Your task to perform on an android device: Search for macbook pro 13 inch on amazon.com, select the first entry, and add it to the cart. Image 0: 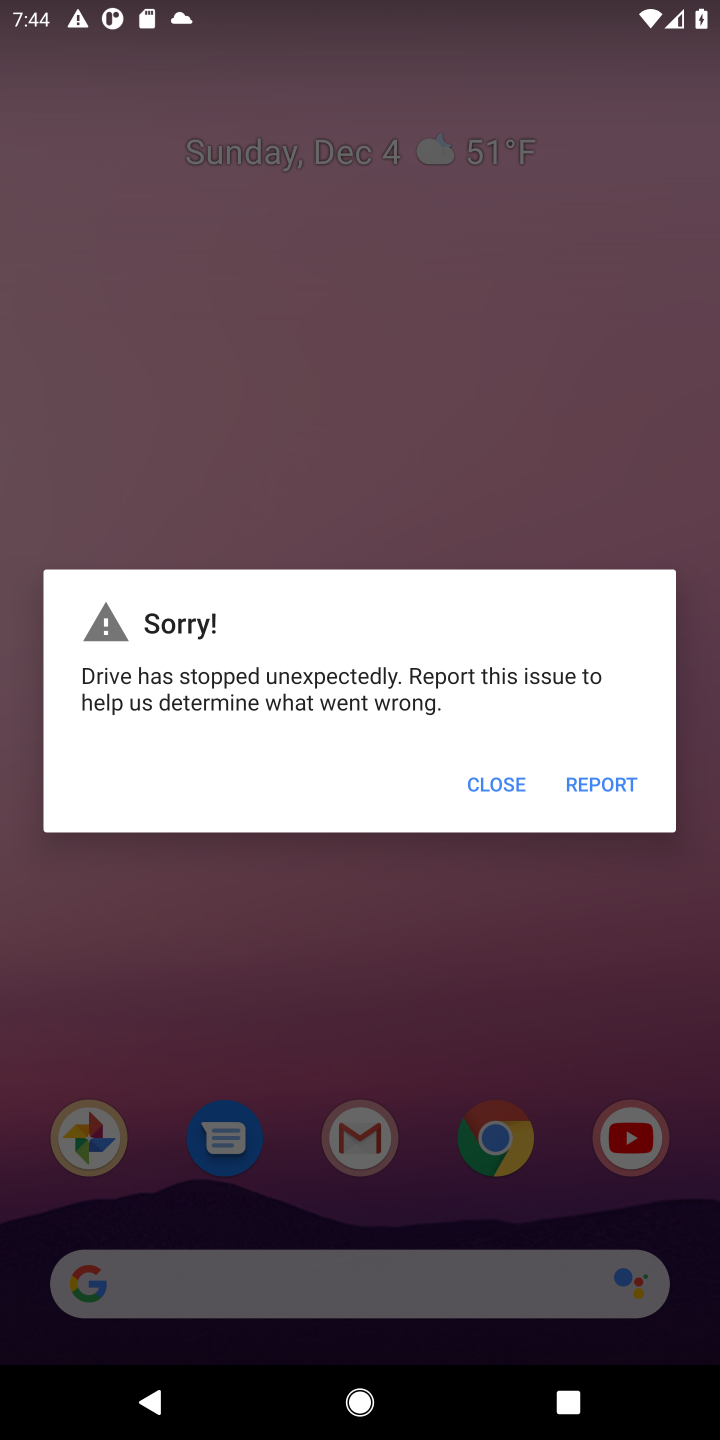
Step 0: press home button
Your task to perform on an android device: Search for macbook pro 13 inch on amazon.com, select the first entry, and add it to the cart. Image 1: 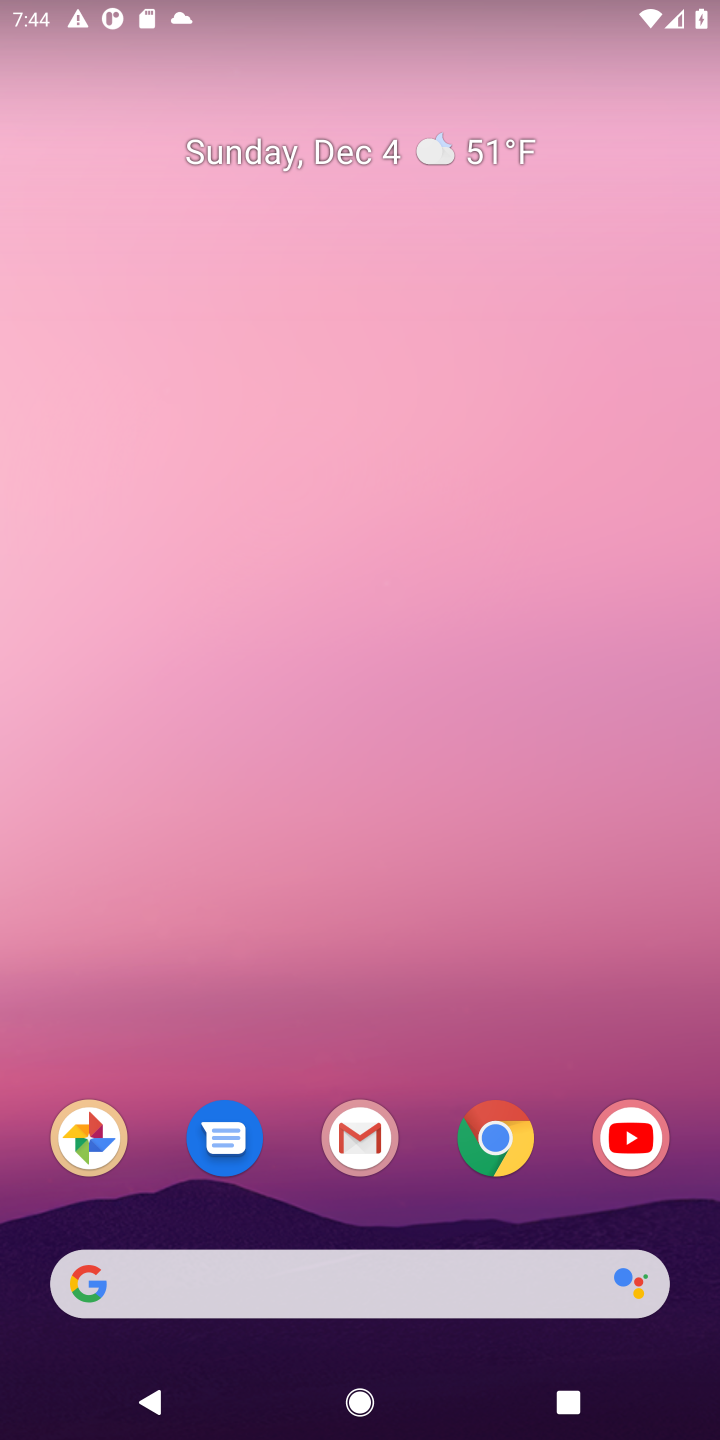
Step 1: click (506, 1146)
Your task to perform on an android device: Search for macbook pro 13 inch on amazon.com, select the first entry, and add it to the cart. Image 2: 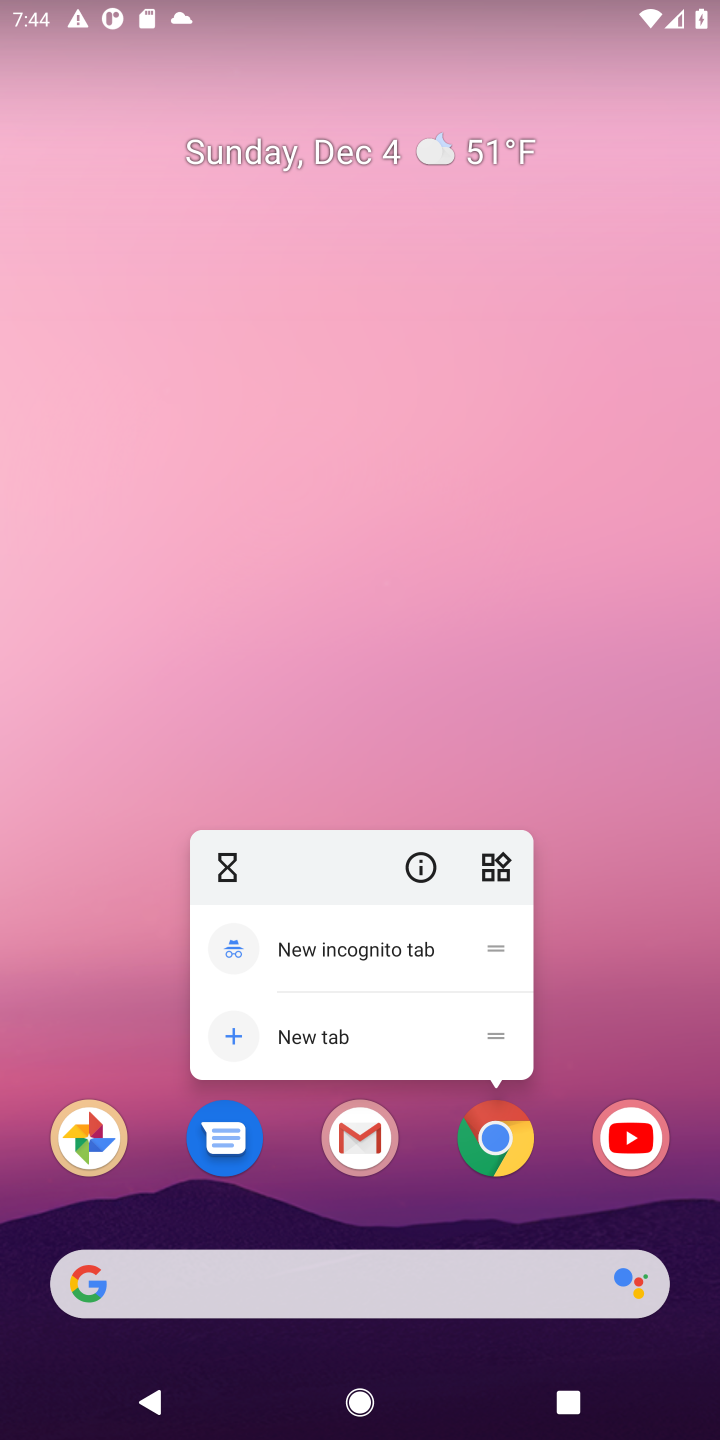
Step 2: click (506, 1146)
Your task to perform on an android device: Search for macbook pro 13 inch on amazon.com, select the first entry, and add it to the cart. Image 3: 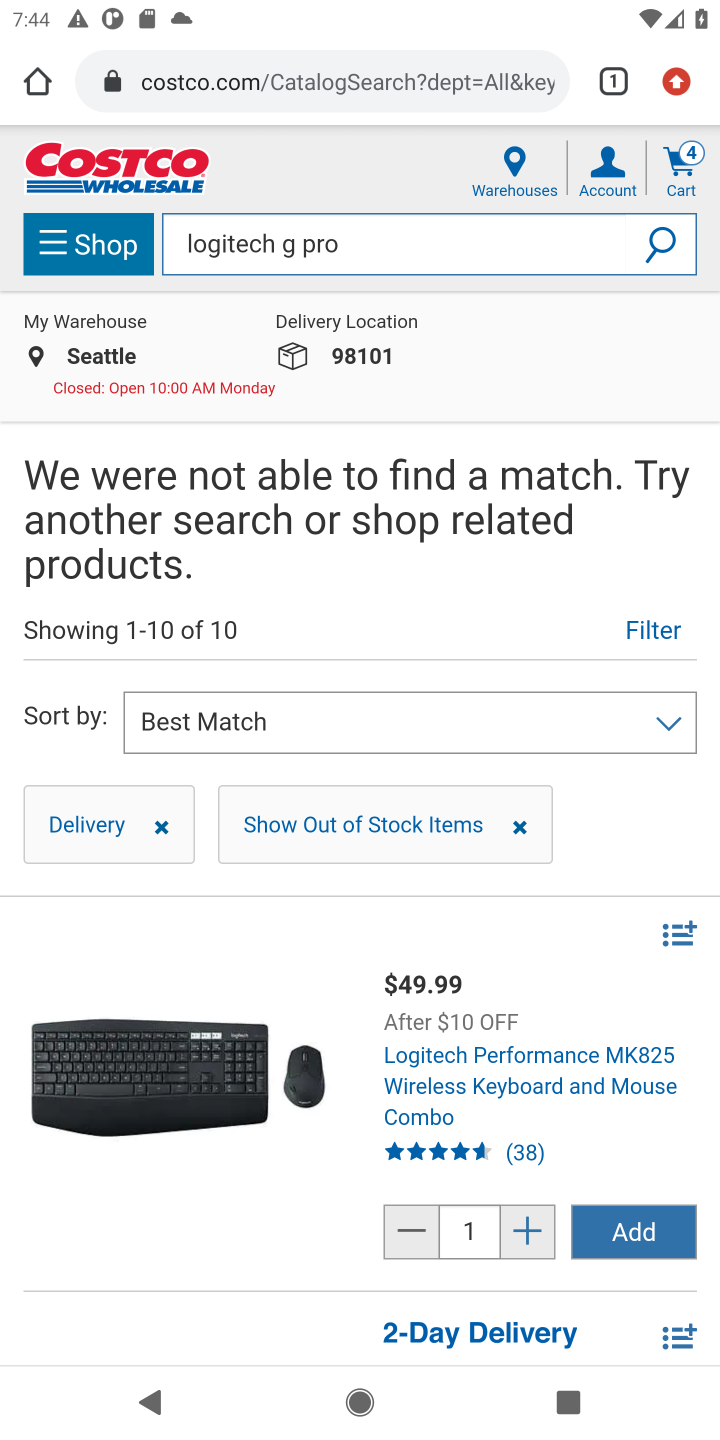
Step 3: click (426, 95)
Your task to perform on an android device: Search for macbook pro 13 inch on amazon.com, select the first entry, and add it to the cart. Image 4: 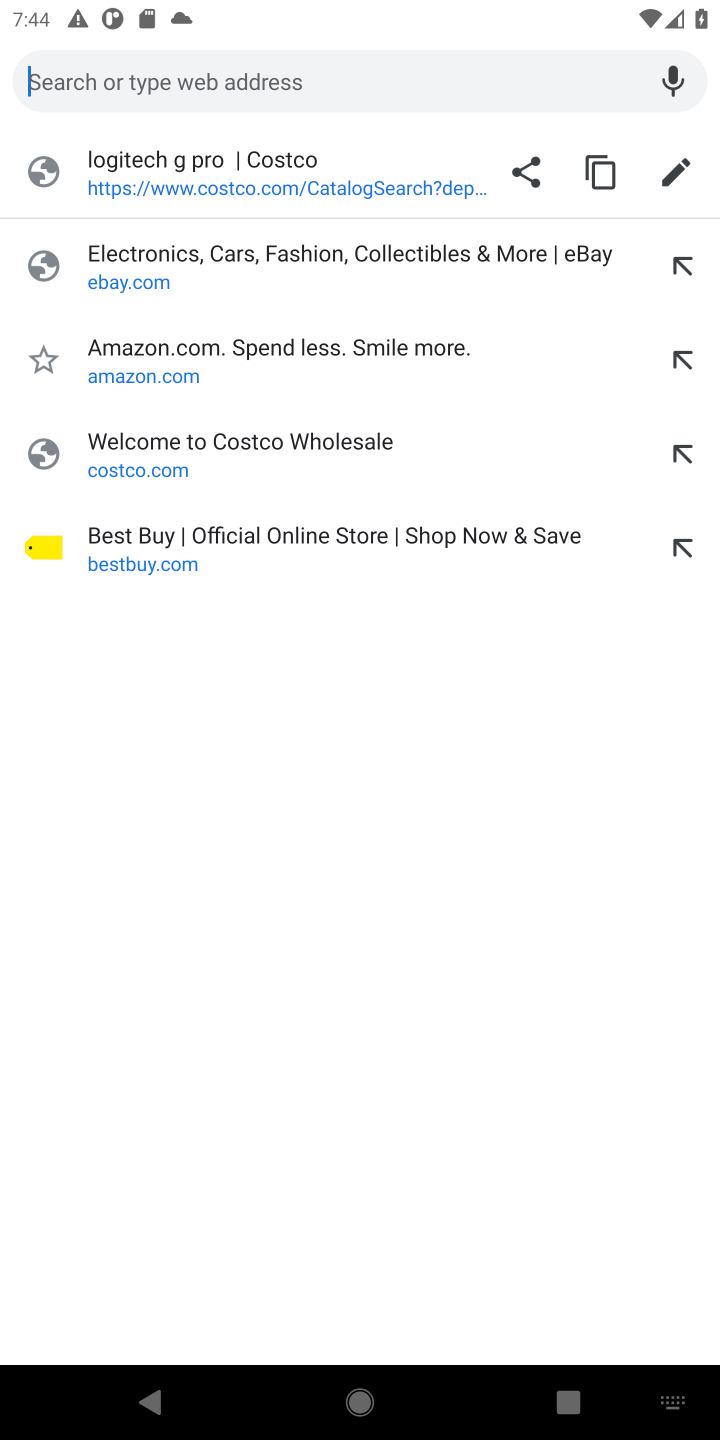
Step 4: click (218, 340)
Your task to perform on an android device: Search for macbook pro 13 inch on amazon.com, select the first entry, and add it to the cart. Image 5: 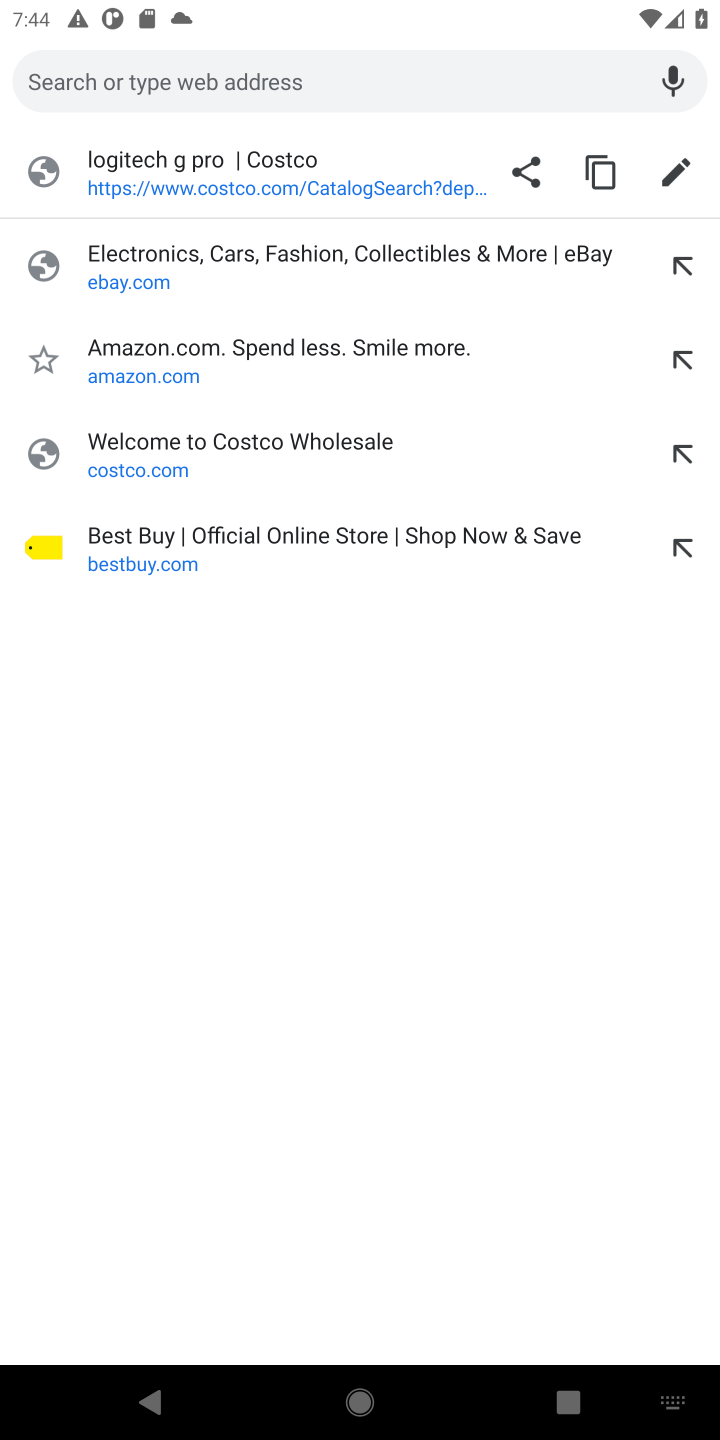
Step 5: click (298, 343)
Your task to perform on an android device: Search for macbook pro 13 inch on amazon.com, select the first entry, and add it to the cart. Image 6: 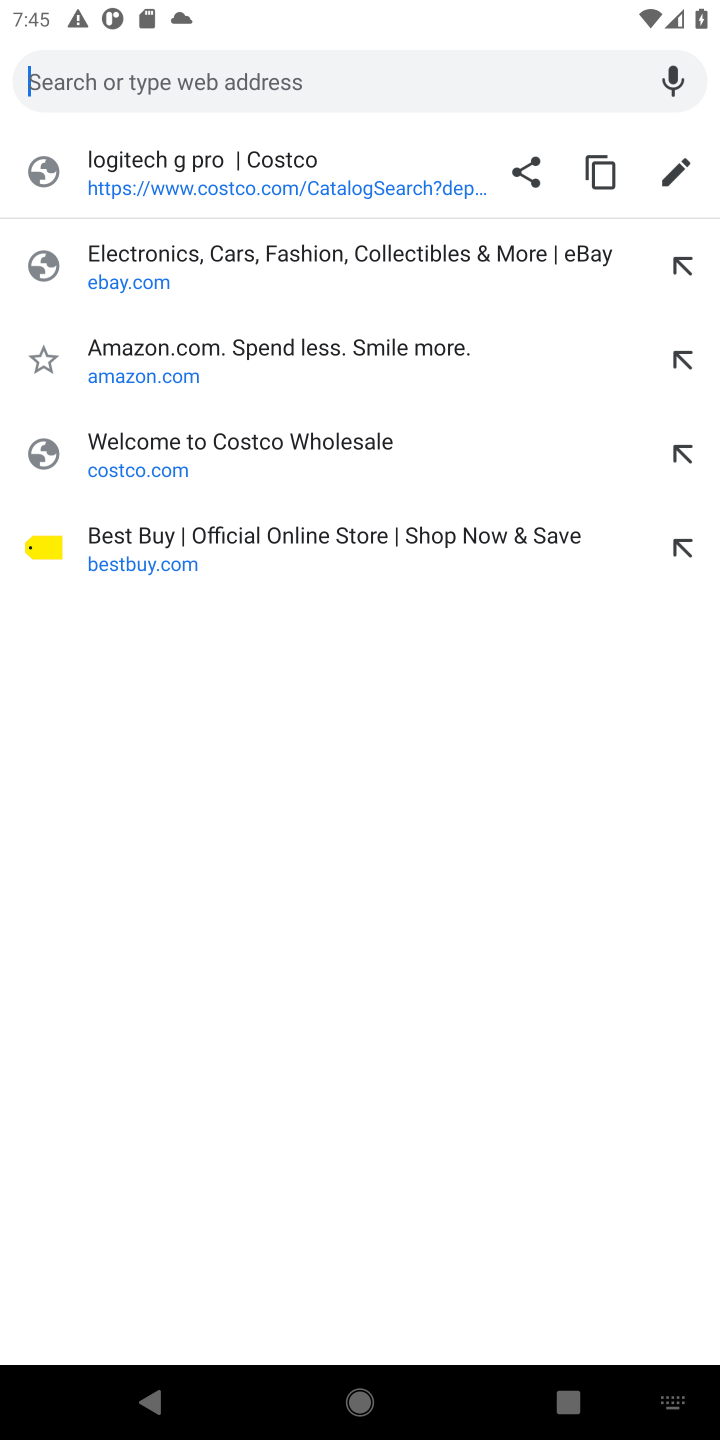
Step 6: click (298, 343)
Your task to perform on an android device: Search for macbook pro 13 inch on amazon.com, select the first entry, and add it to the cart. Image 7: 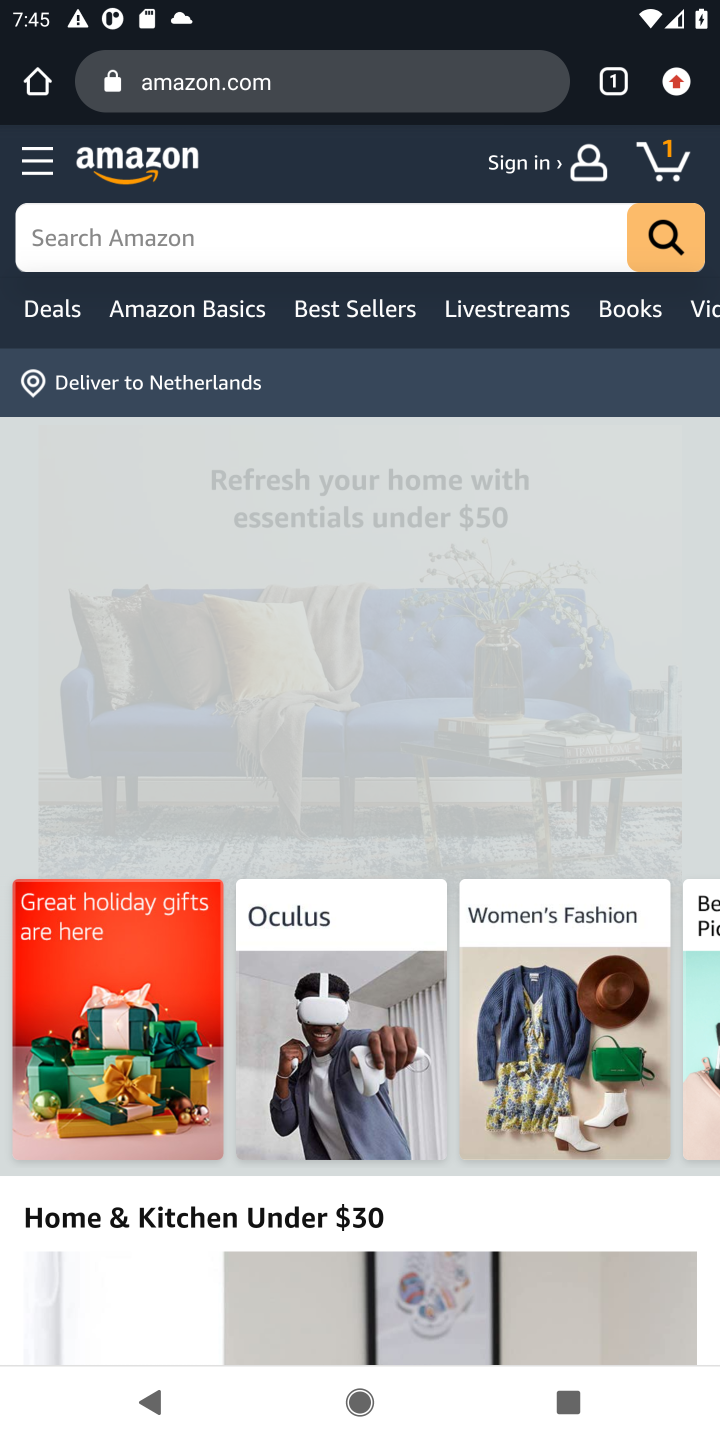
Step 7: click (557, 245)
Your task to perform on an android device: Search for macbook pro 13 inch on amazon.com, select the first entry, and add it to the cart. Image 8: 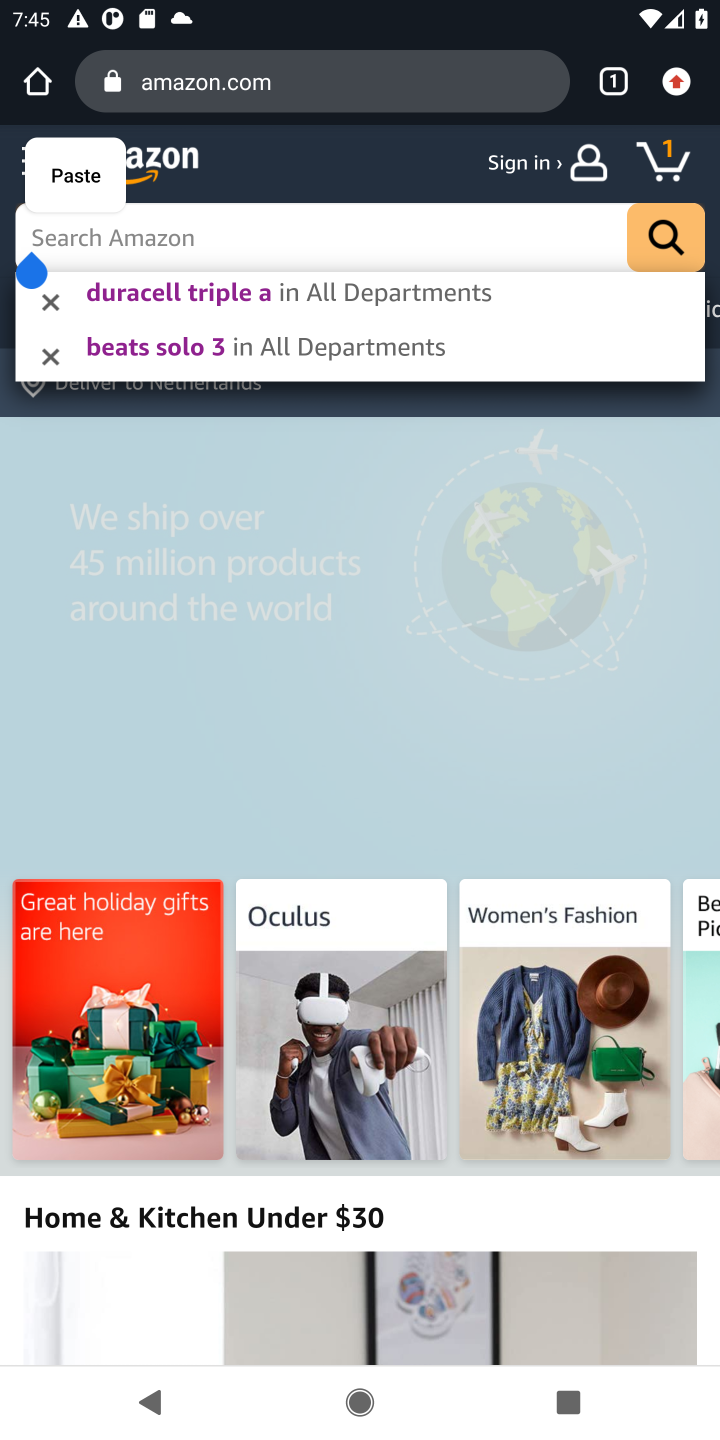
Step 8: press enter
Your task to perform on an android device: Search for macbook pro 13 inch on amazon.com, select the first entry, and add it to the cart. Image 9: 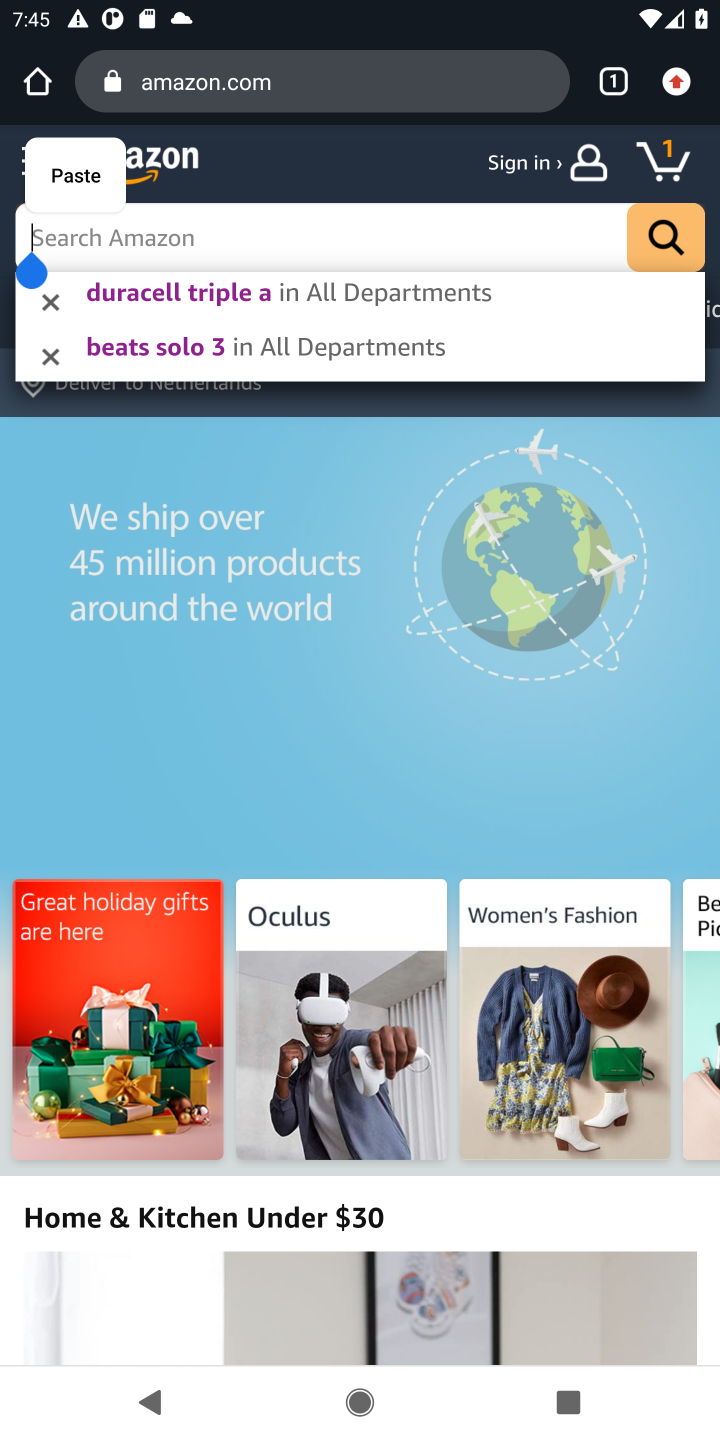
Step 9: type "macbook pro 13 inch"
Your task to perform on an android device: Search for macbook pro 13 inch on amazon.com, select the first entry, and add it to the cart. Image 10: 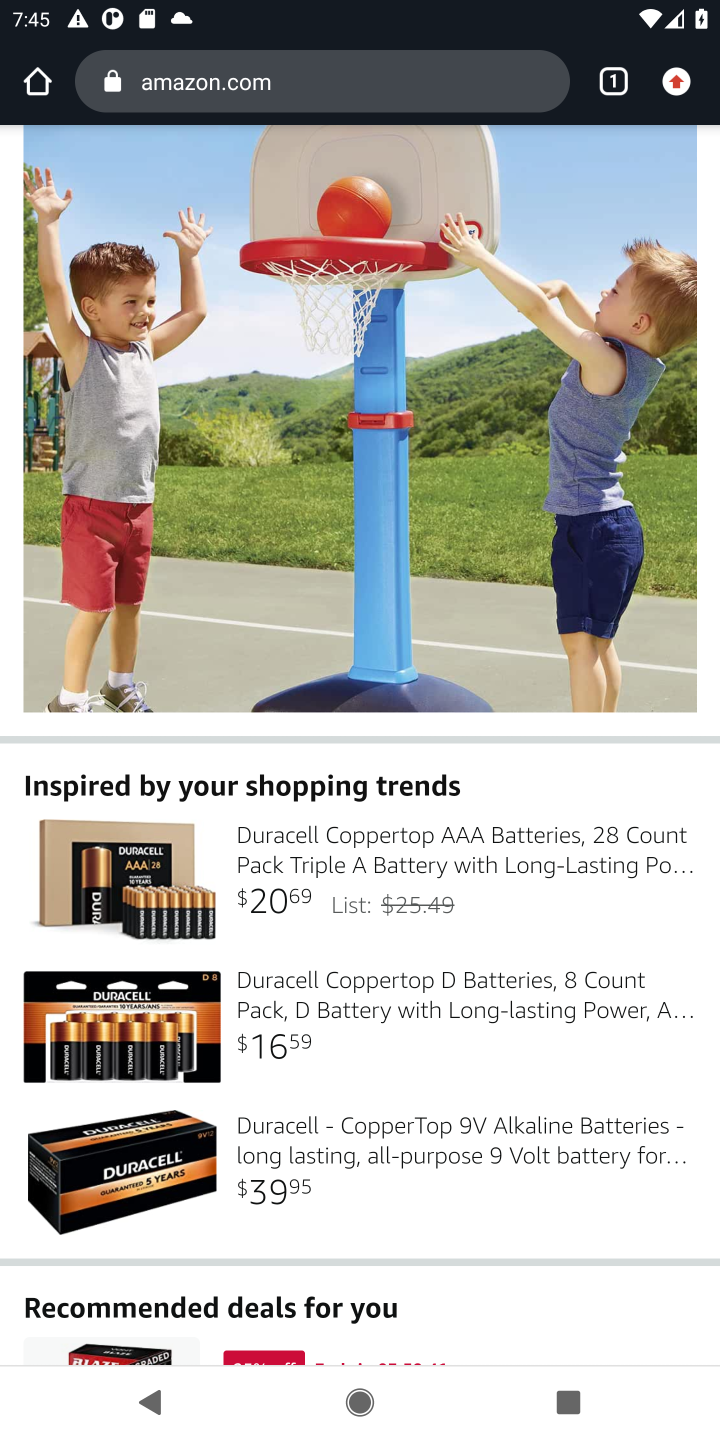
Step 10: drag from (558, 460) to (646, 1435)
Your task to perform on an android device: Search for macbook pro 13 inch on amazon.com, select the first entry, and add it to the cart. Image 11: 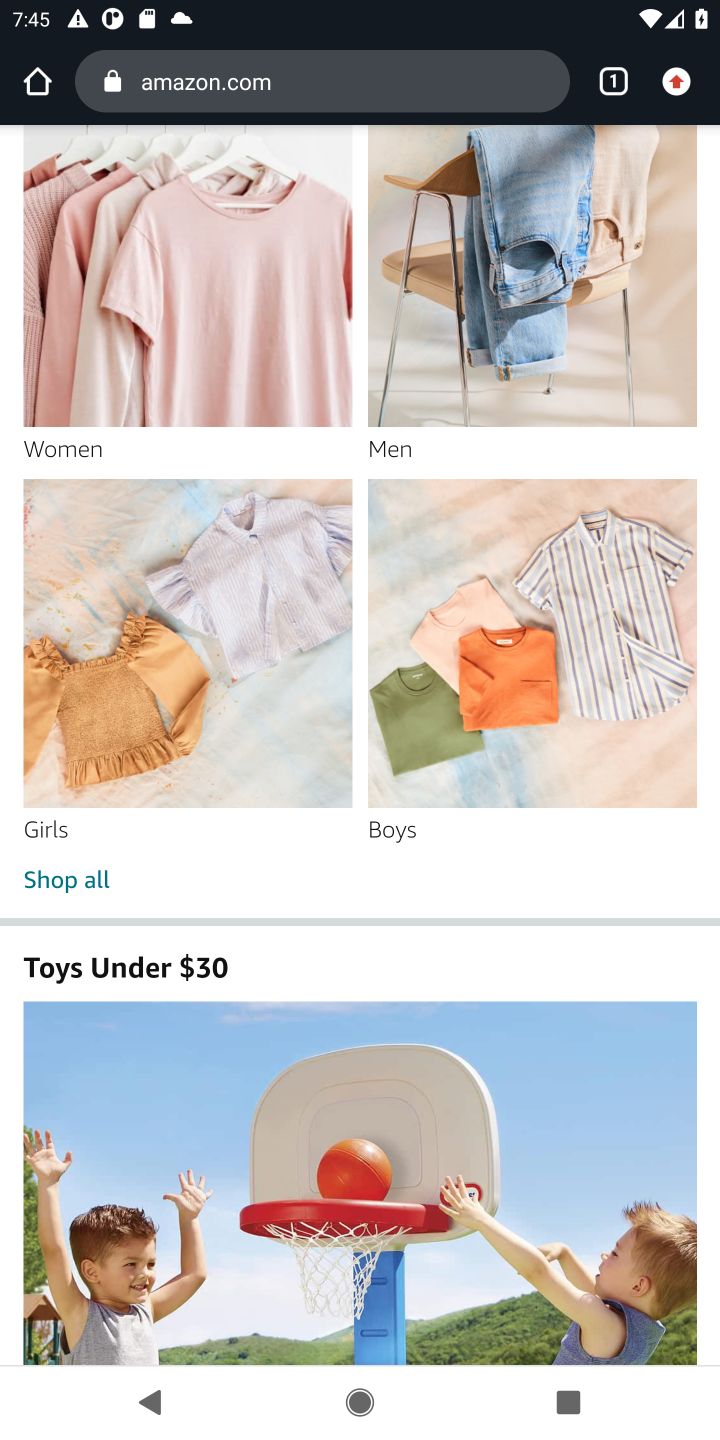
Step 11: drag from (498, 684) to (612, 1381)
Your task to perform on an android device: Search for macbook pro 13 inch on amazon.com, select the first entry, and add it to the cart. Image 12: 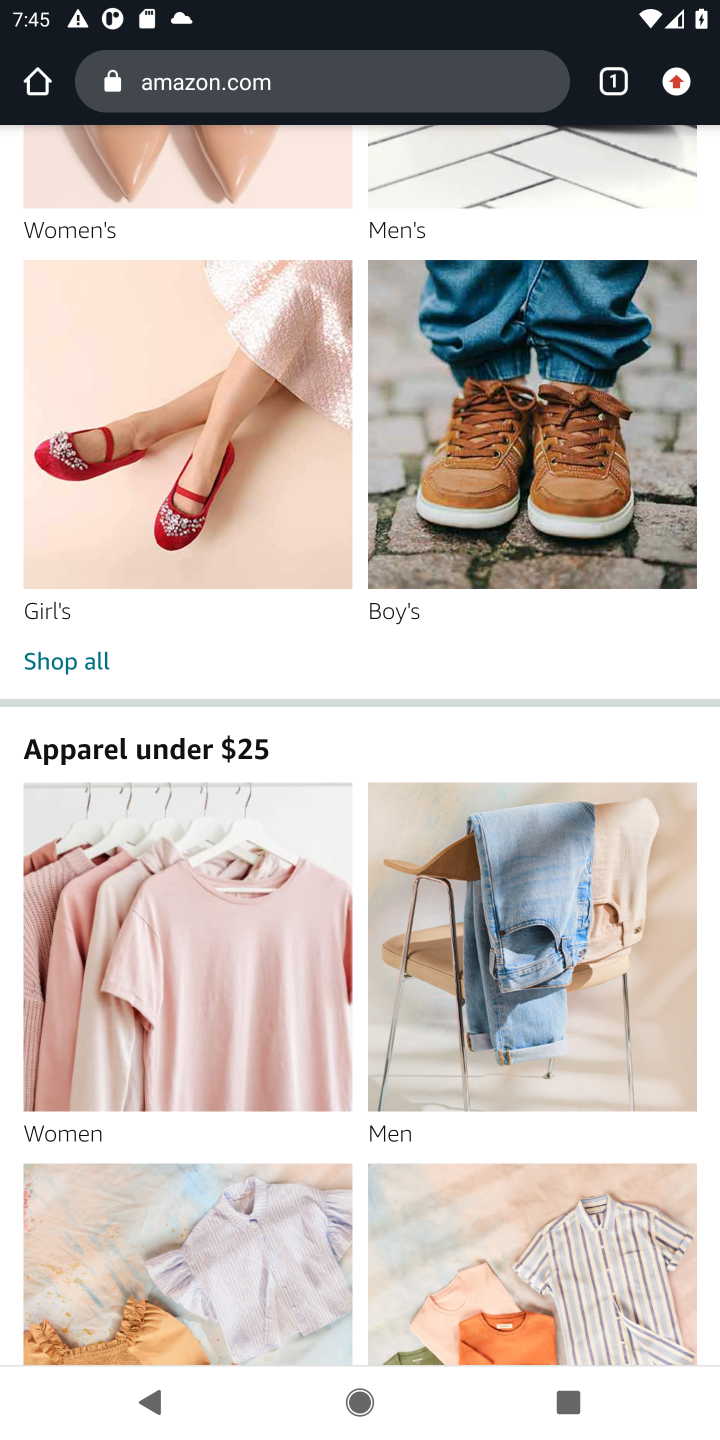
Step 12: drag from (480, 1253) to (544, 1330)
Your task to perform on an android device: Search for macbook pro 13 inch on amazon.com, select the first entry, and add it to the cart. Image 13: 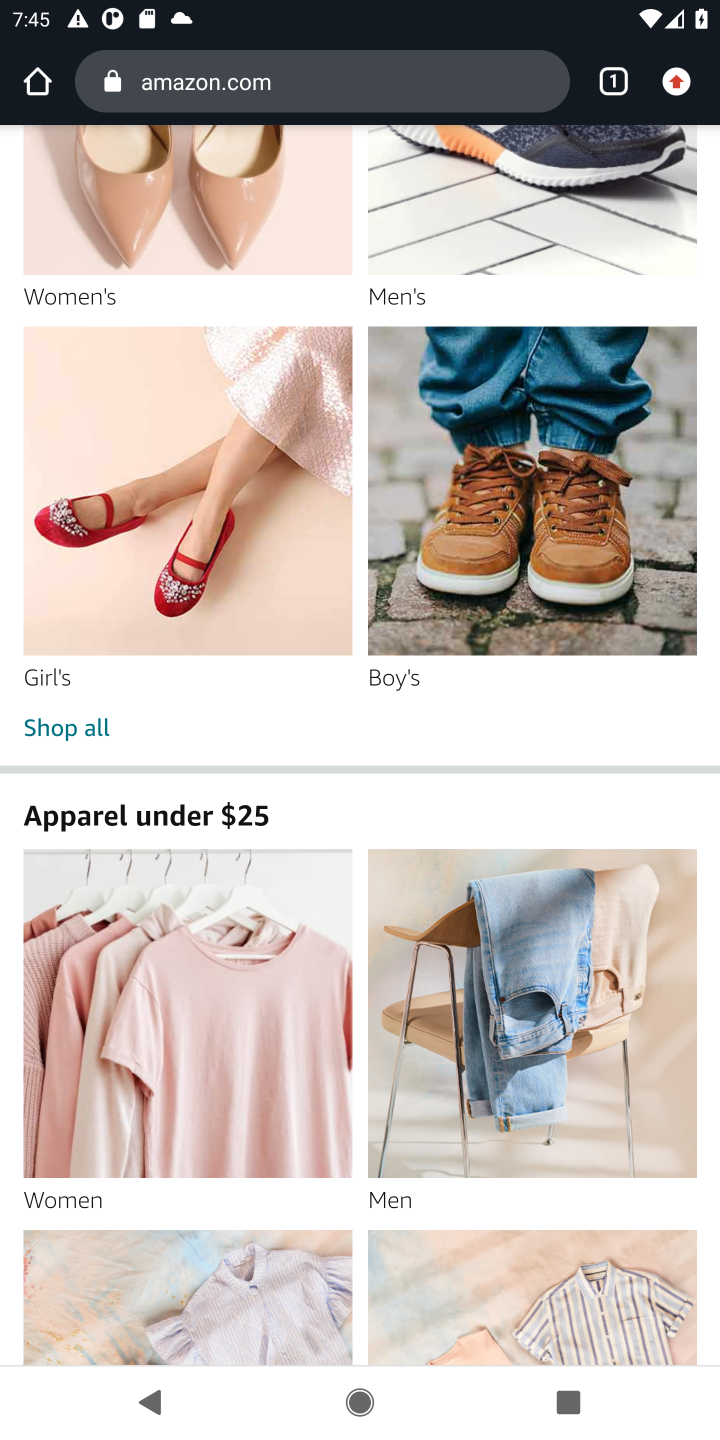
Step 13: drag from (512, 707) to (522, 1328)
Your task to perform on an android device: Search for macbook pro 13 inch on amazon.com, select the first entry, and add it to the cart. Image 14: 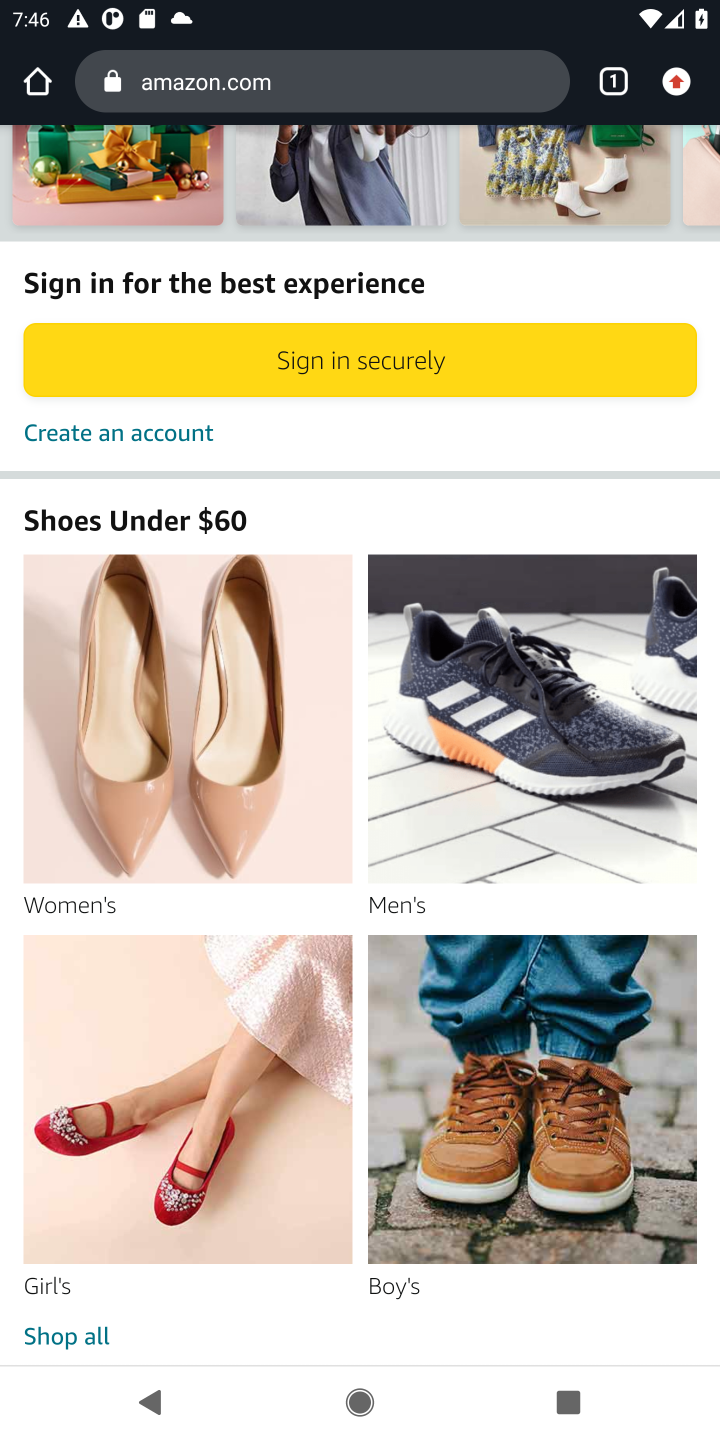
Step 14: click (393, 357)
Your task to perform on an android device: Search for macbook pro 13 inch on amazon.com, select the first entry, and add it to the cart. Image 15: 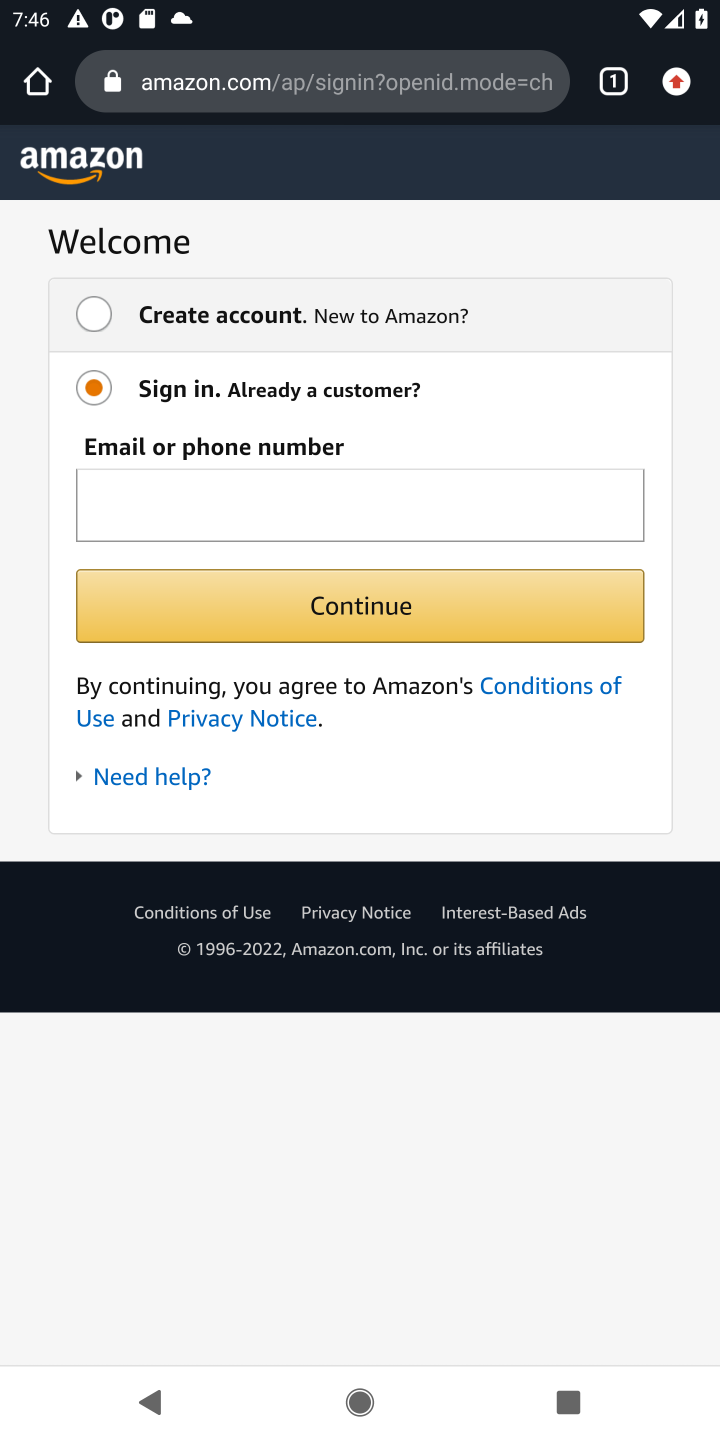
Step 15: task complete